Your task to perform on an android device: add a label to a message in the gmail app Image 0: 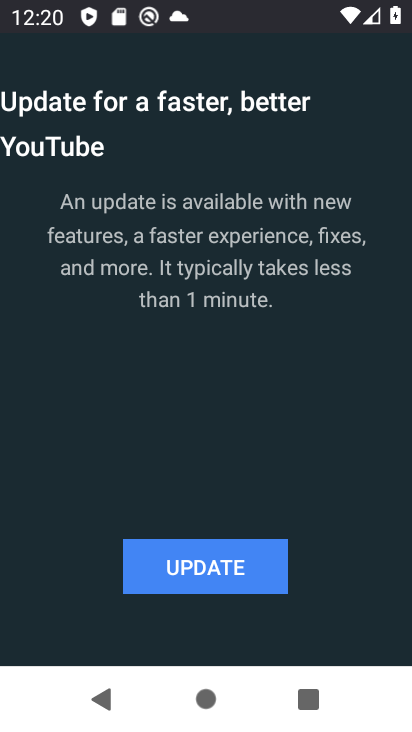
Step 0: press home button
Your task to perform on an android device: add a label to a message in the gmail app Image 1: 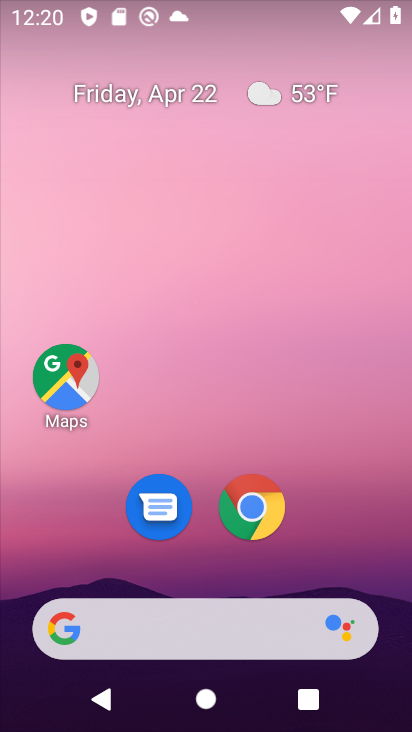
Step 1: drag from (319, 433) to (281, 58)
Your task to perform on an android device: add a label to a message in the gmail app Image 2: 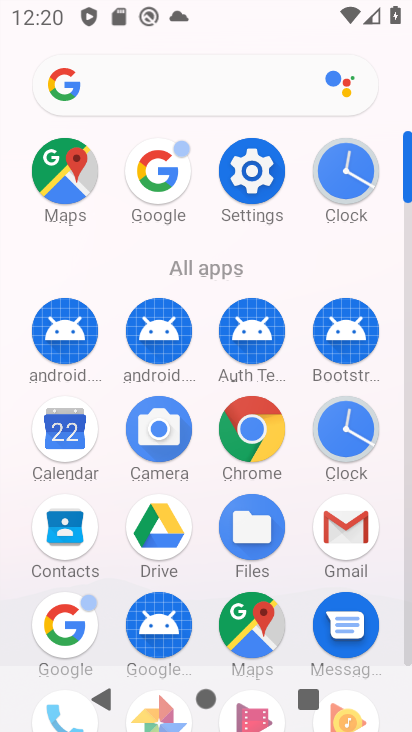
Step 2: click (354, 543)
Your task to perform on an android device: add a label to a message in the gmail app Image 3: 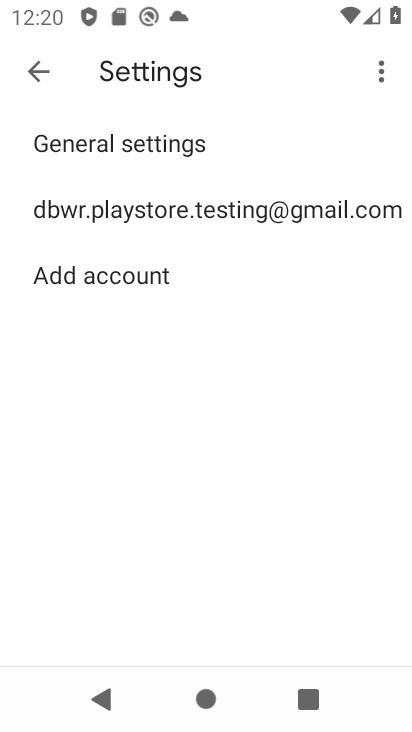
Step 3: click (36, 69)
Your task to perform on an android device: add a label to a message in the gmail app Image 4: 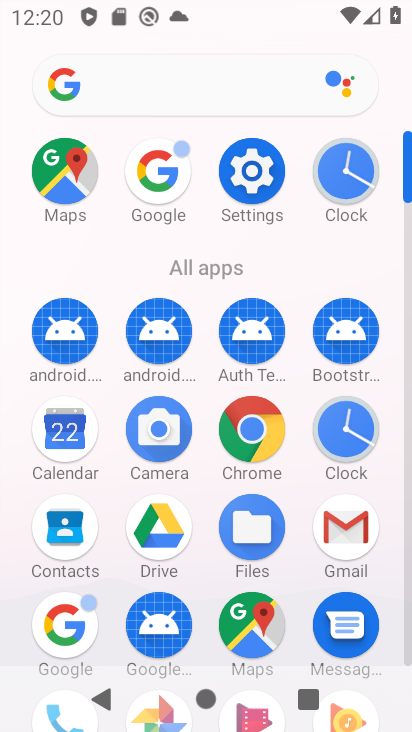
Step 4: click (341, 528)
Your task to perform on an android device: add a label to a message in the gmail app Image 5: 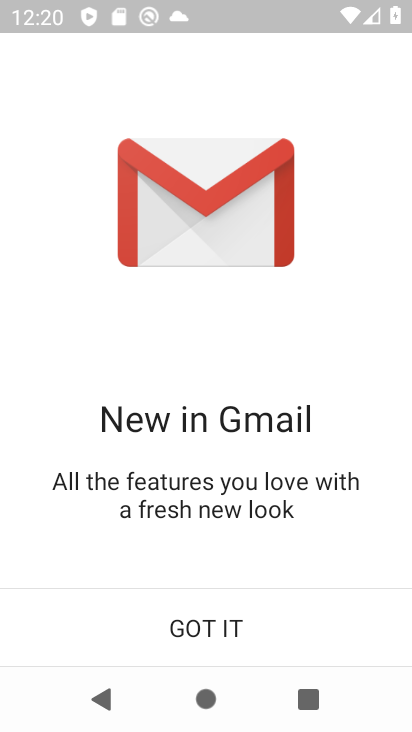
Step 5: click (176, 637)
Your task to perform on an android device: add a label to a message in the gmail app Image 6: 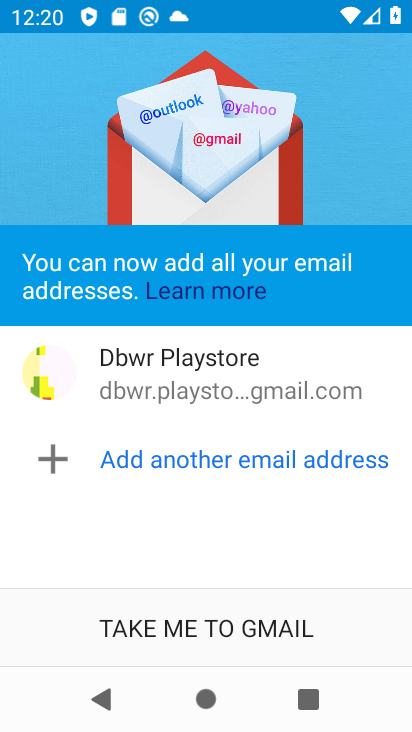
Step 6: click (195, 626)
Your task to perform on an android device: add a label to a message in the gmail app Image 7: 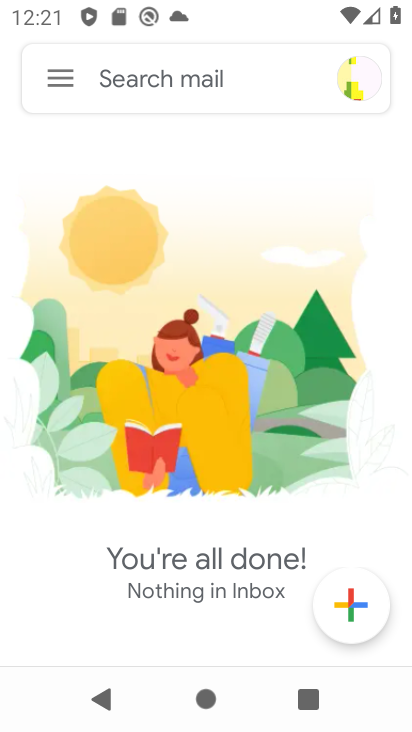
Step 7: click (56, 82)
Your task to perform on an android device: add a label to a message in the gmail app Image 8: 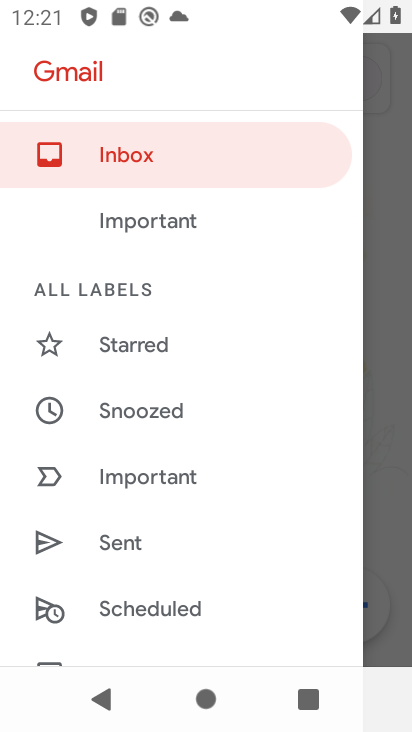
Step 8: task complete